Your task to perform on an android device: turn off airplane mode Image 0: 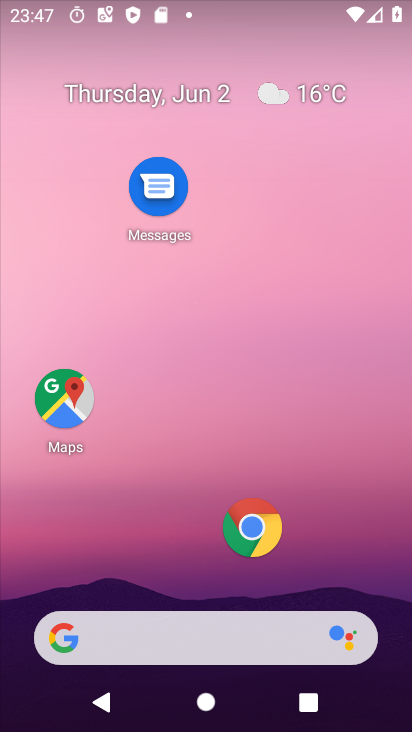
Step 0: press home button
Your task to perform on an android device: turn off airplane mode Image 1: 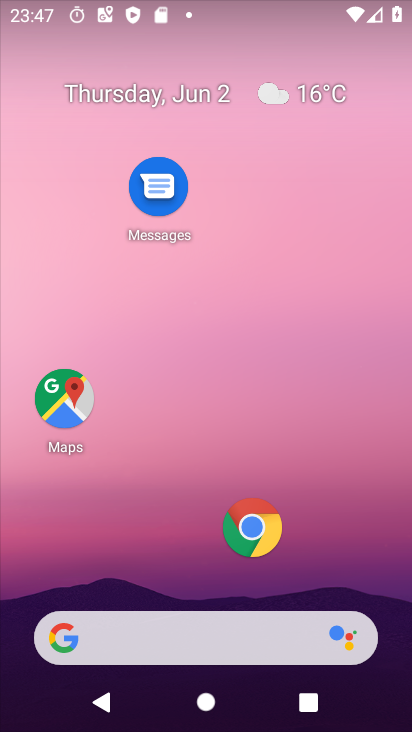
Step 1: drag from (212, 583) to (230, 58)
Your task to perform on an android device: turn off airplane mode Image 2: 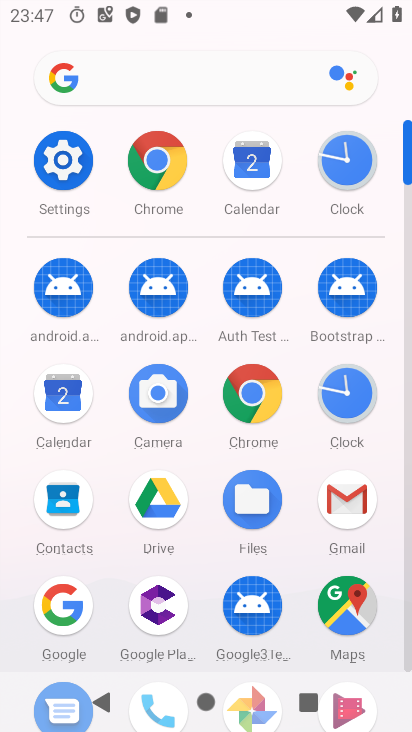
Step 2: drag from (236, 4) to (294, 472)
Your task to perform on an android device: turn off airplane mode Image 3: 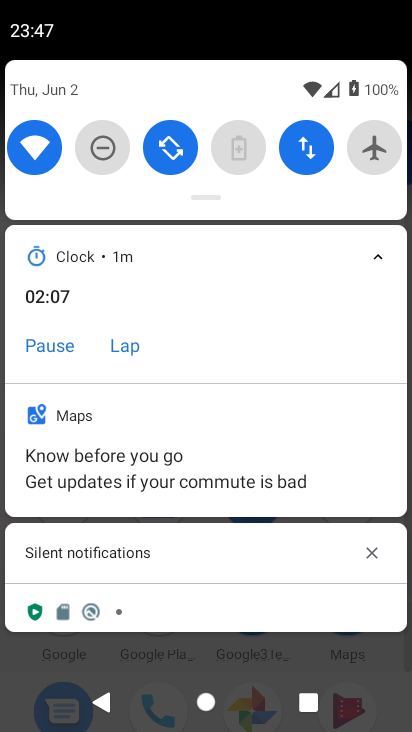
Step 3: click (373, 142)
Your task to perform on an android device: turn off airplane mode Image 4: 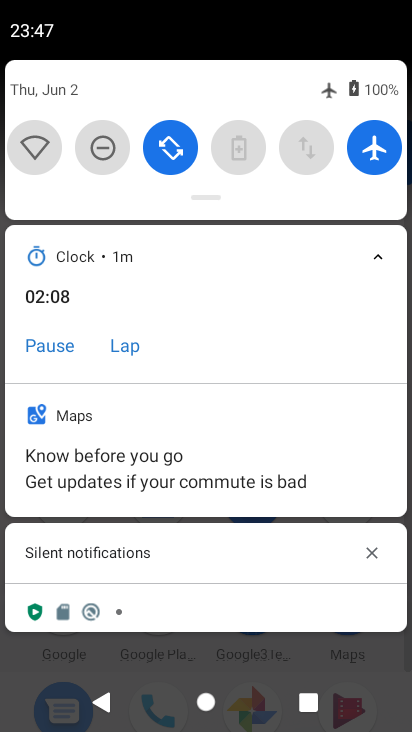
Step 4: click (373, 142)
Your task to perform on an android device: turn off airplane mode Image 5: 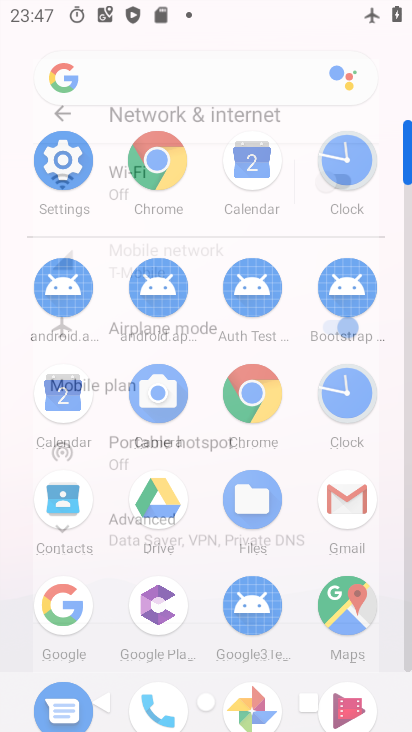
Step 5: task complete